Your task to perform on an android device: Open the stopwatch Image 0: 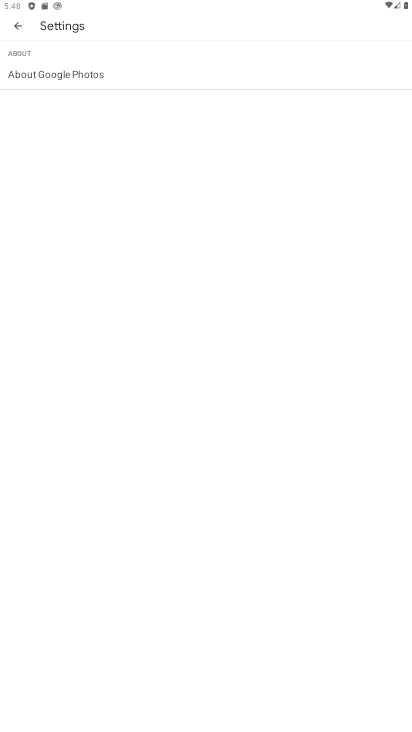
Step 0: press home button
Your task to perform on an android device: Open the stopwatch Image 1: 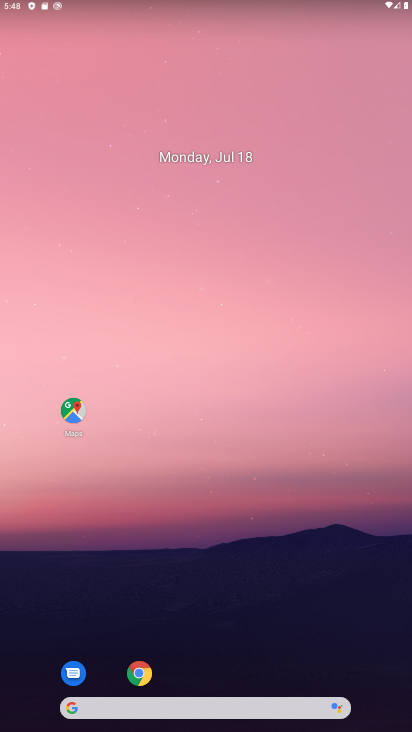
Step 1: drag from (253, 640) to (304, 286)
Your task to perform on an android device: Open the stopwatch Image 2: 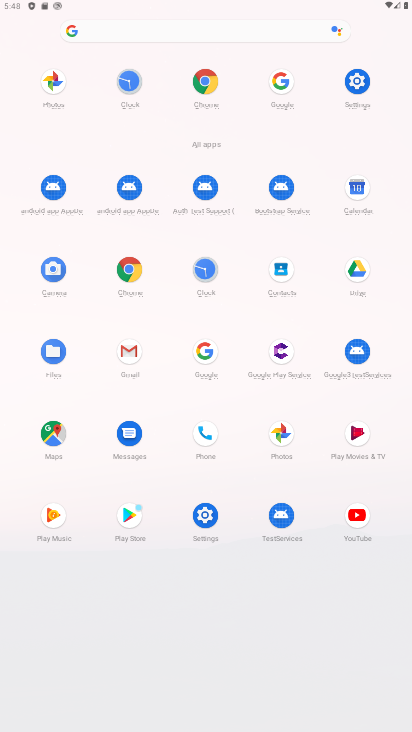
Step 2: click (209, 269)
Your task to perform on an android device: Open the stopwatch Image 3: 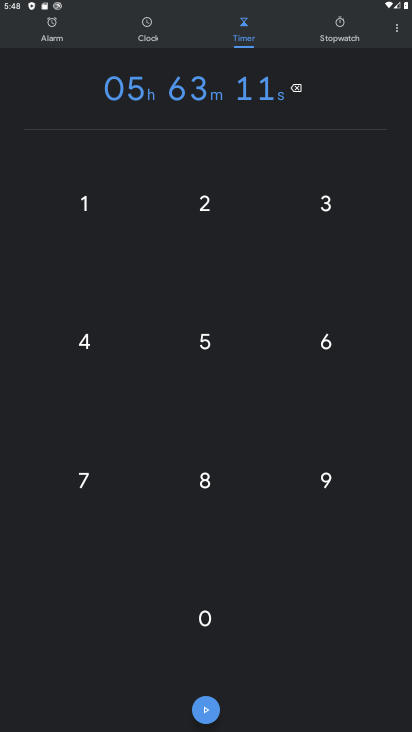
Step 3: click (343, 21)
Your task to perform on an android device: Open the stopwatch Image 4: 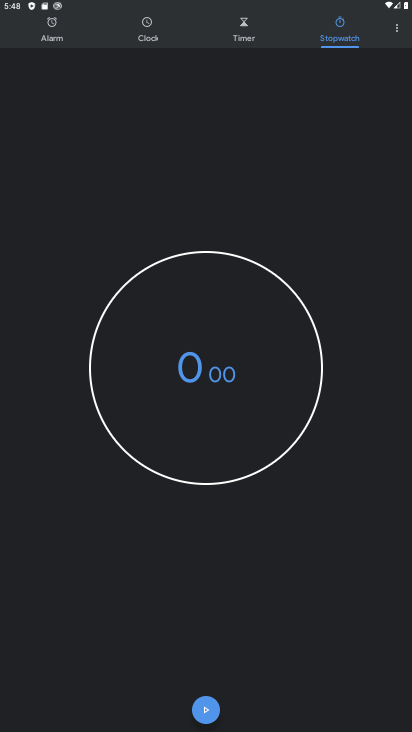
Step 4: click (209, 702)
Your task to perform on an android device: Open the stopwatch Image 5: 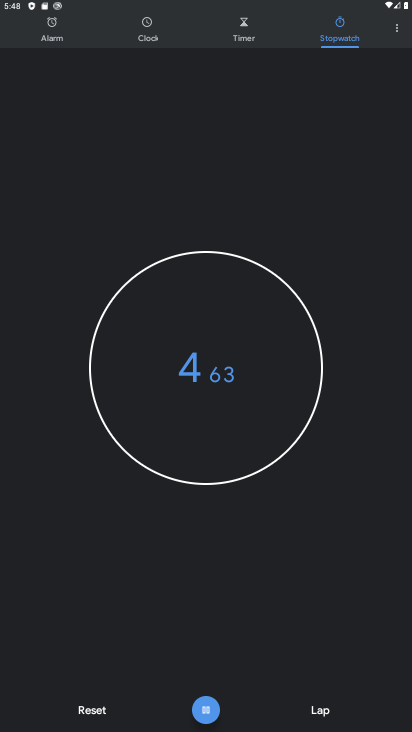
Step 5: click (230, 355)
Your task to perform on an android device: Open the stopwatch Image 6: 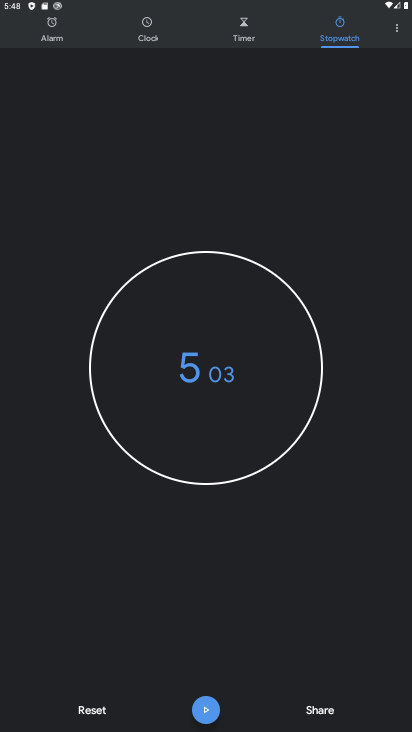
Step 6: task complete